Your task to perform on an android device: open app "Chime – Mobile Banking" (install if not already installed) and go to login screen Image 0: 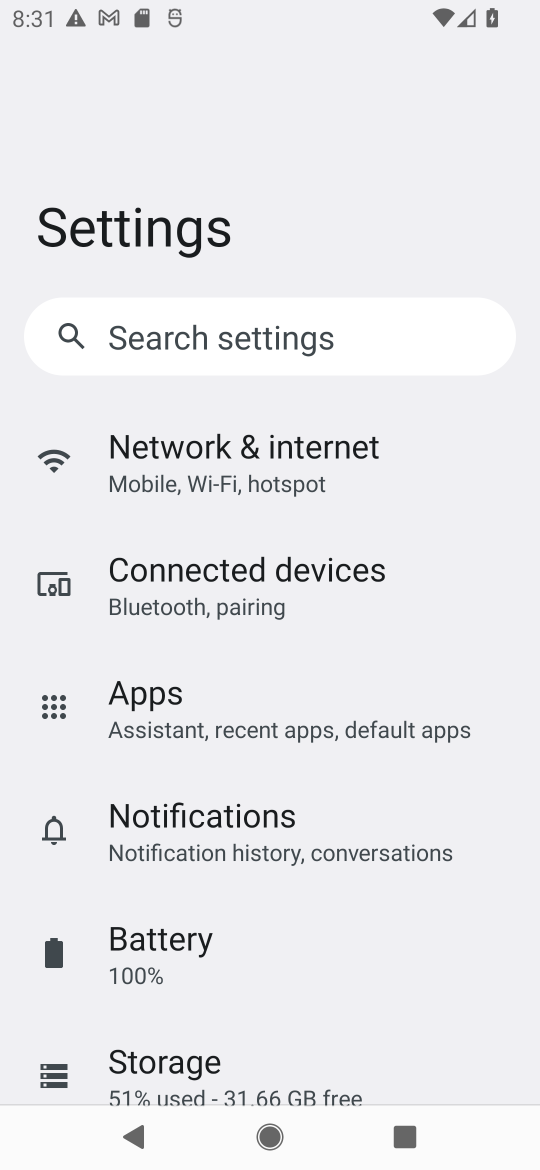
Step 0: press home button
Your task to perform on an android device: open app "Chime – Mobile Banking" (install if not already installed) and go to login screen Image 1: 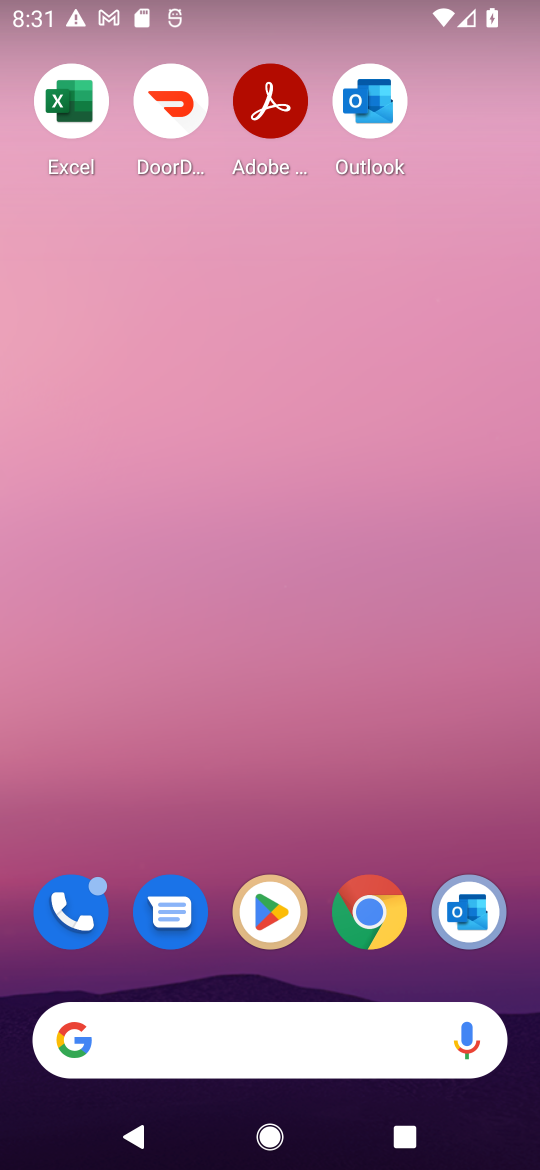
Step 1: drag from (164, 1016) to (293, 10)
Your task to perform on an android device: open app "Chime – Mobile Banking" (install if not already installed) and go to login screen Image 2: 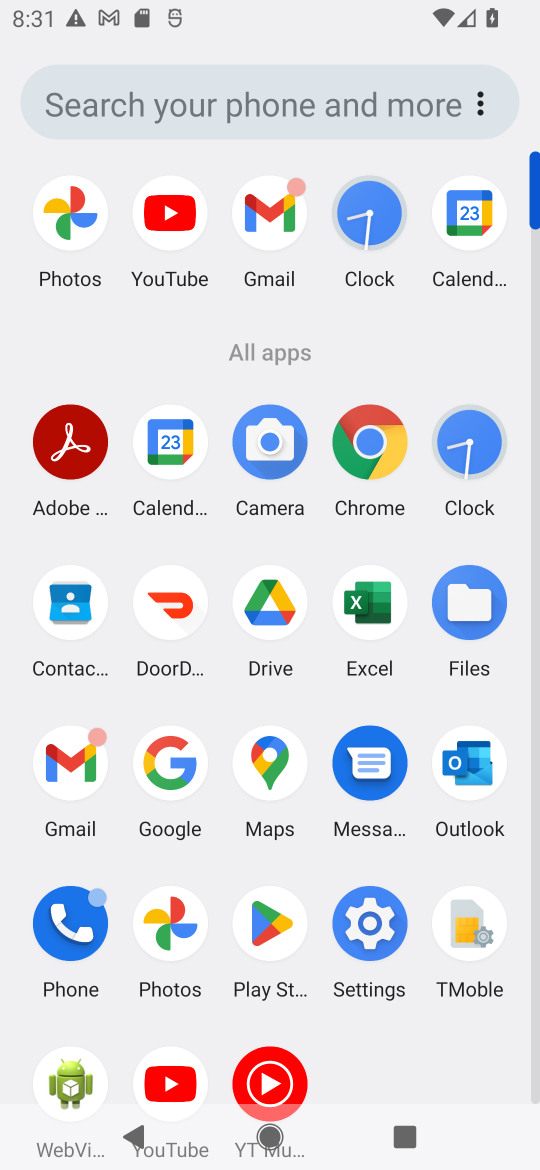
Step 2: click (270, 929)
Your task to perform on an android device: open app "Chime – Mobile Banking" (install if not already installed) and go to login screen Image 3: 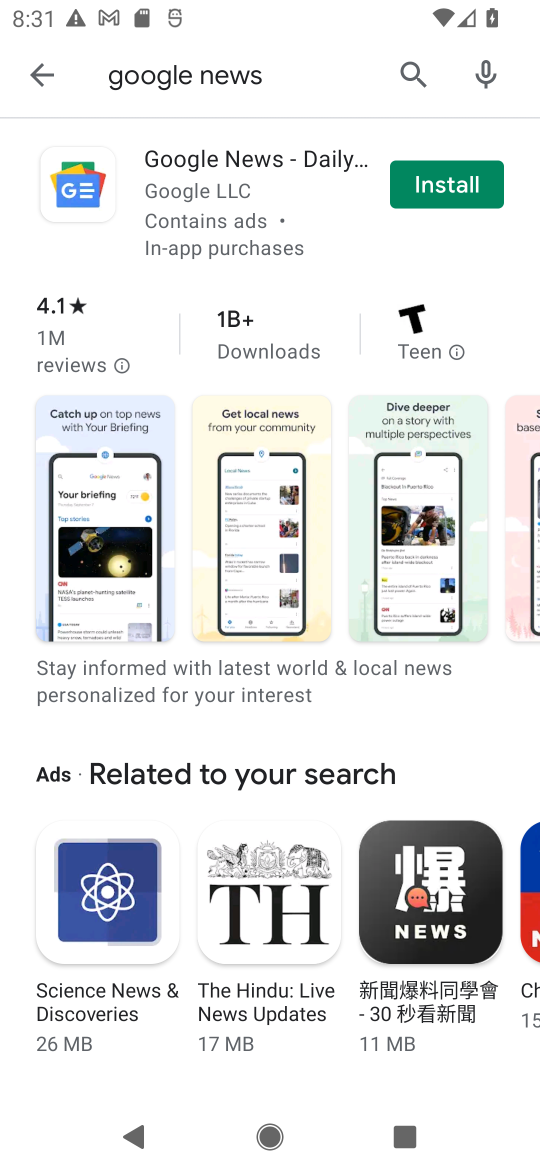
Step 3: press back button
Your task to perform on an android device: open app "Chime – Mobile Banking" (install if not already installed) and go to login screen Image 4: 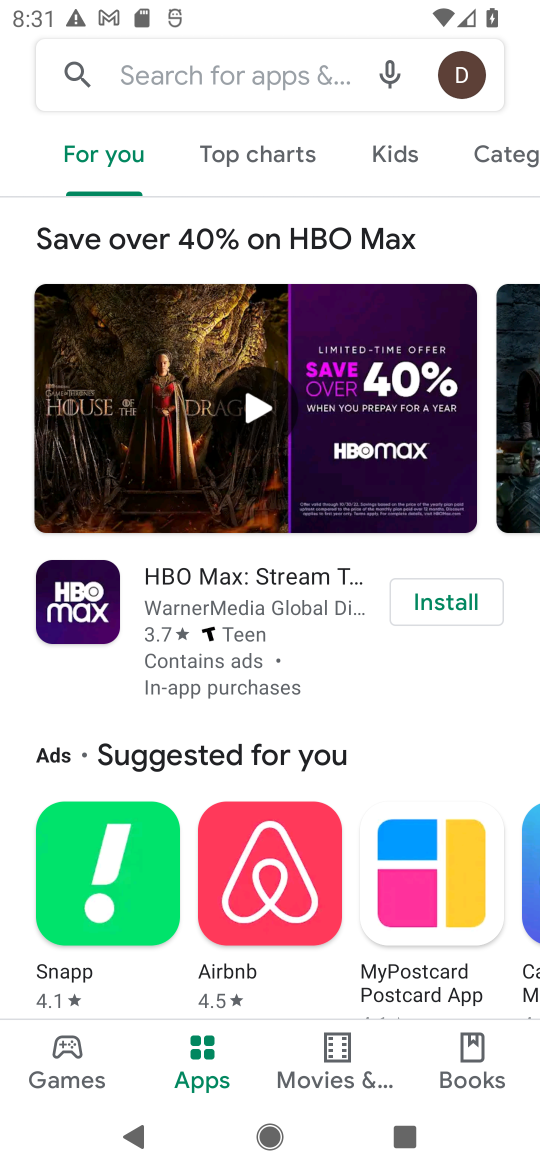
Step 4: click (286, 75)
Your task to perform on an android device: open app "Chime – Mobile Banking" (install if not already installed) and go to login screen Image 5: 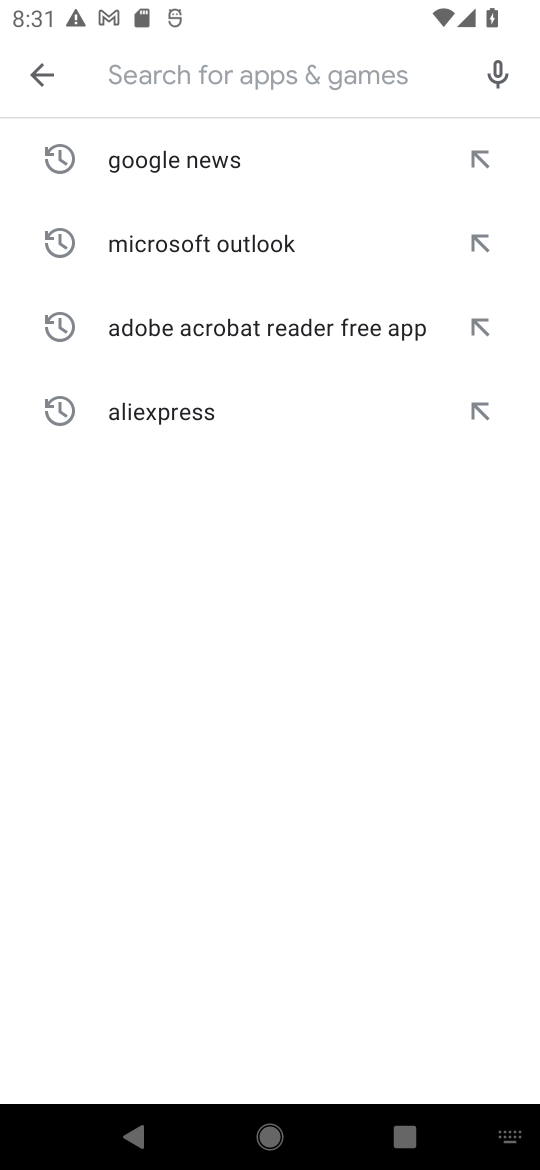
Step 5: type "Chime - Mobile Banking"
Your task to perform on an android device: open app "Chime – Mobile Banking" (install if not already installed) and go to login screen Image 6: 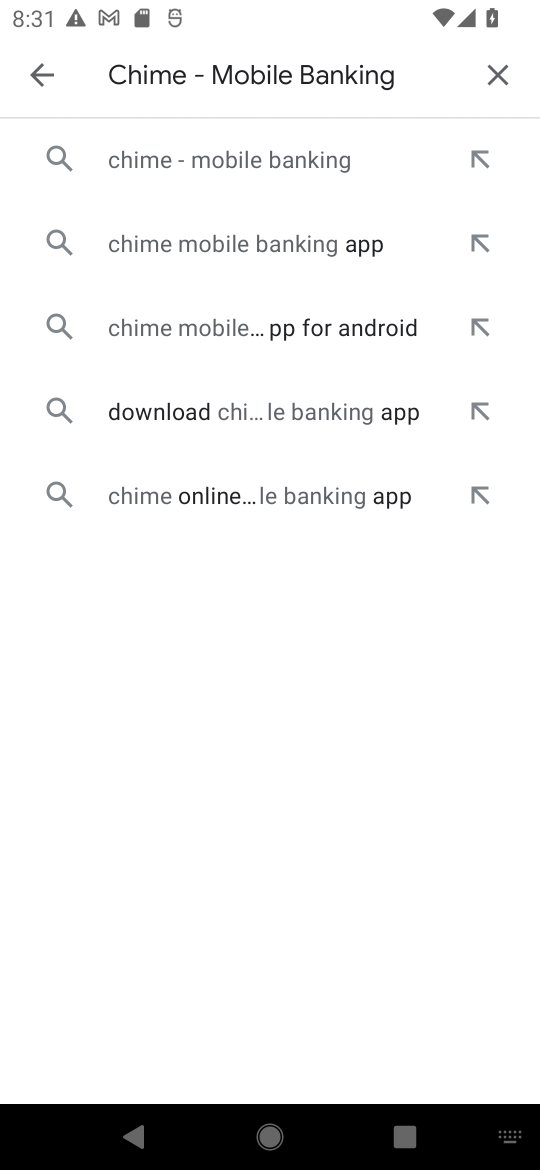
Step 6: click (203, 158)
Your task to perform on an android device: open app "Chime – Mobile Banking" (install if not already installed) and go to login screen Image 7: 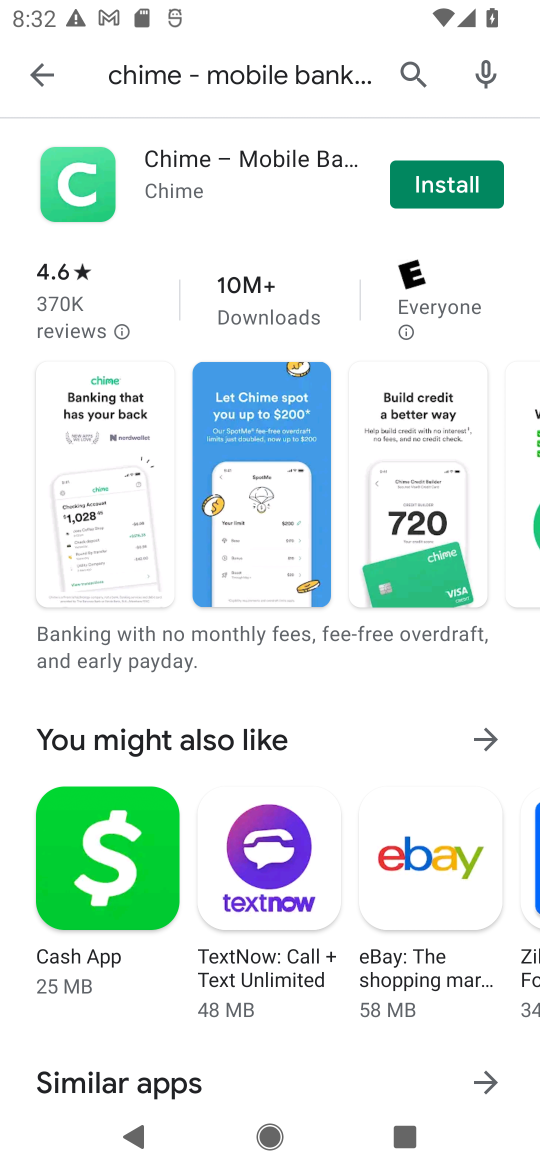
Step 7: click (430, 184)
Your task to perform on an android device: open app "Chime – Mobile Banking" (install if not already installed) and go to login screen Image 8: 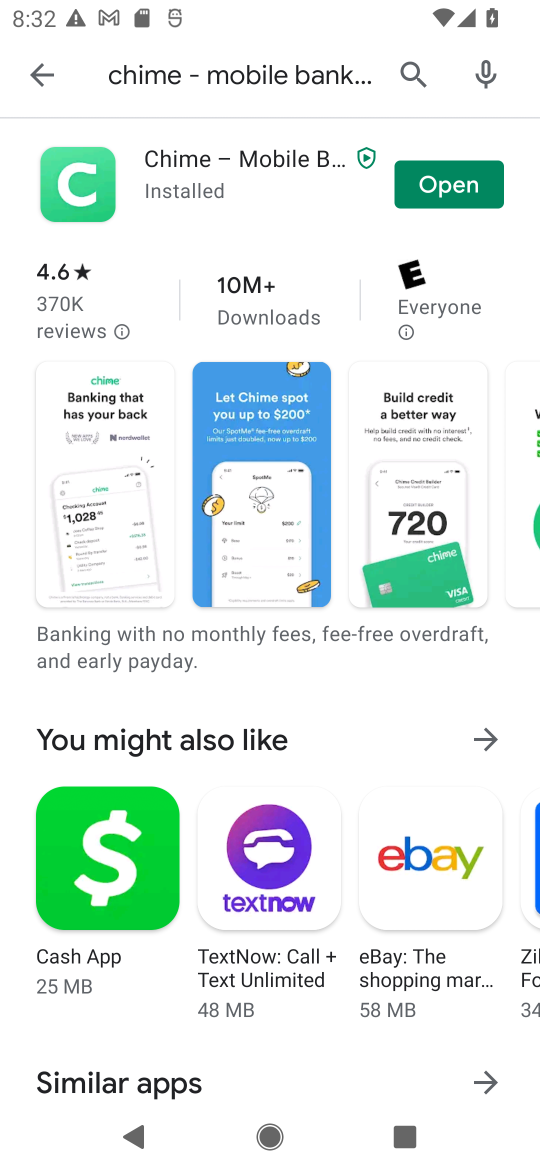
Step 8: click (457, 190)
Your task to perform on an android device: open app "Chime – Mobile Banking" (install if not already installed) and go to login screen Image 9: 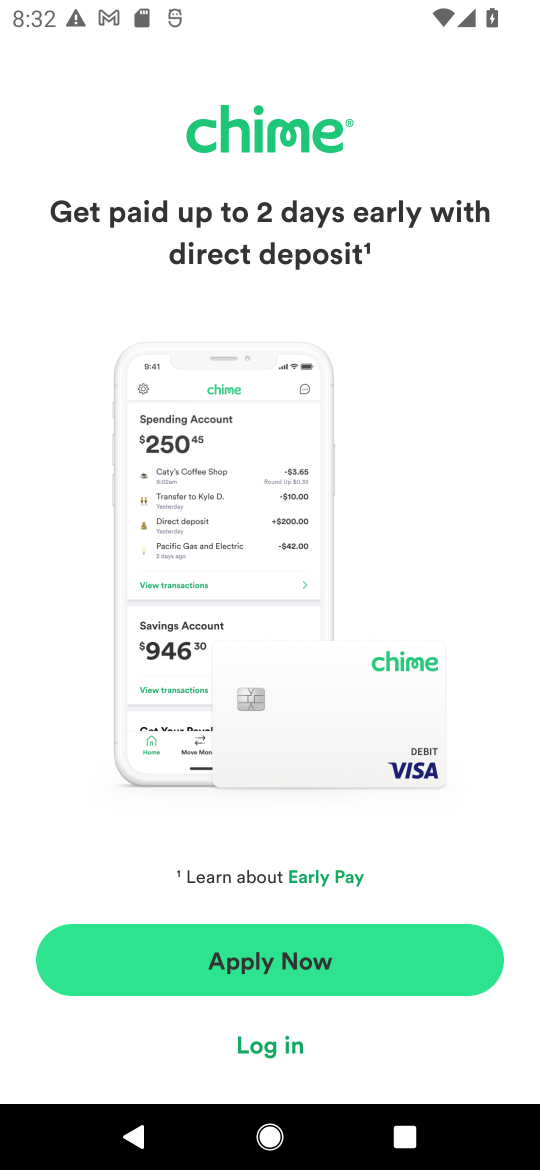
Step 9: click (283, 1053)
Your task to perform on an android device: open app "Chime – Mobile Banking" (install if not already installed) and go to login screen Image 10: 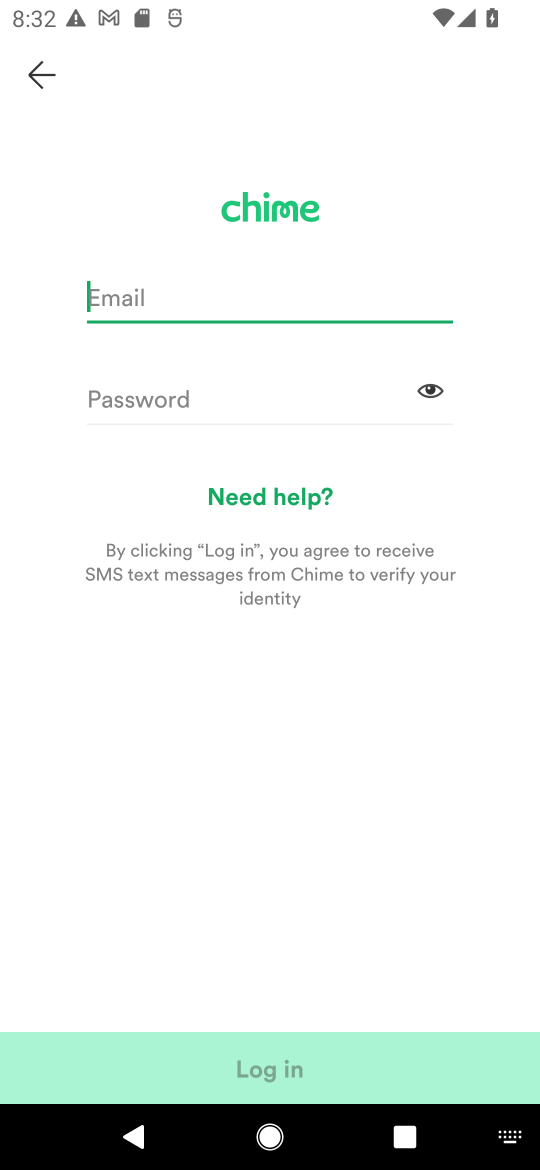
Step 10: task complete